Your task to perform on an android device: Show me the alarms in the clock app Image 0: 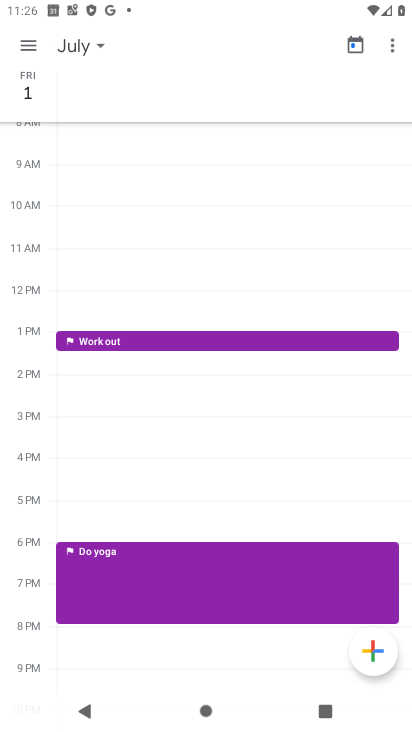
Step 0: press home button
Your task to perform on an android device: Show me the alarms in the clock app Image 1: 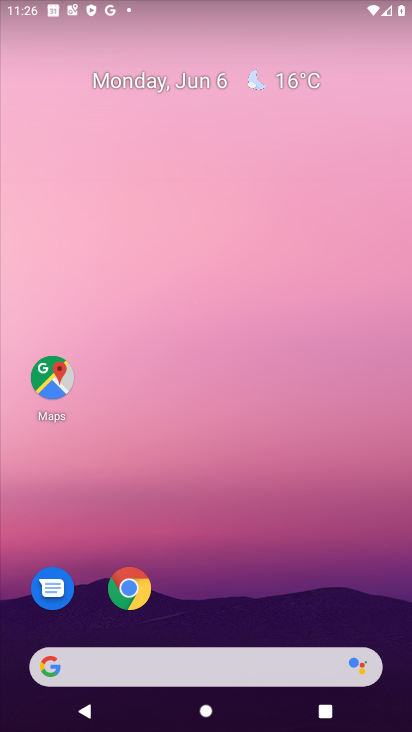
Step 1: drag from (232, 548) to (263, 4)
Your task to perform on an android device: Show me the alarms in the clock app Image 2: 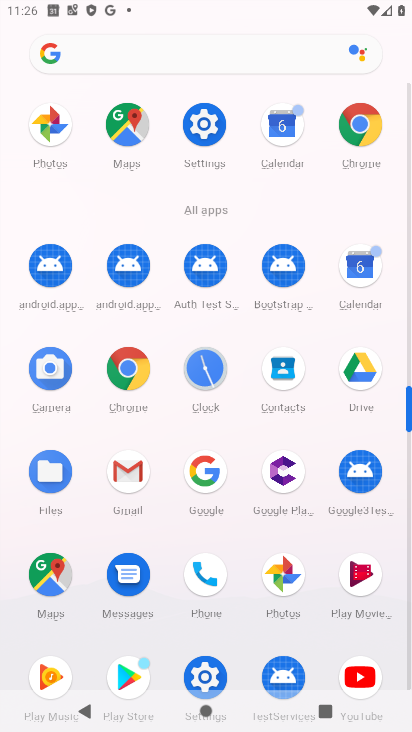
Step 2: click (198, 363)
Your task to perform on an android device: Show me the alarms in the clock app Image 3: 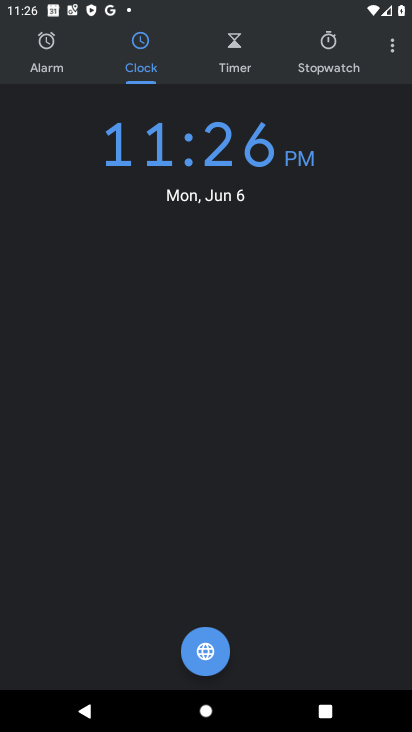
Step 3: click (52, 55)
Your task to perform on an android device: Show me the alarms in the clock app Image 4: 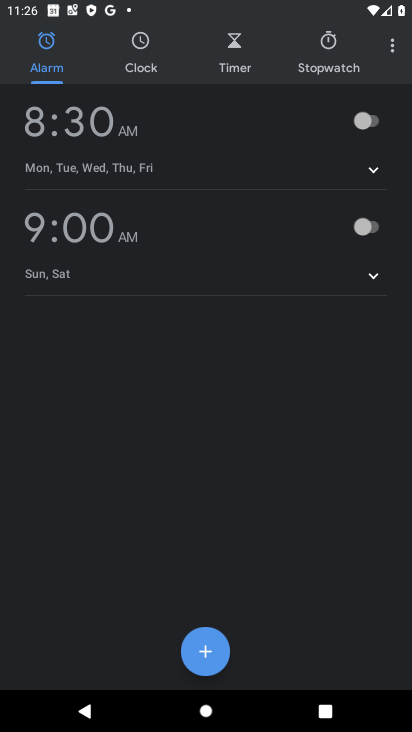
Step 4: task complete